Your task to perform on an android device: Open Chrome and go to the settings page Image 0: 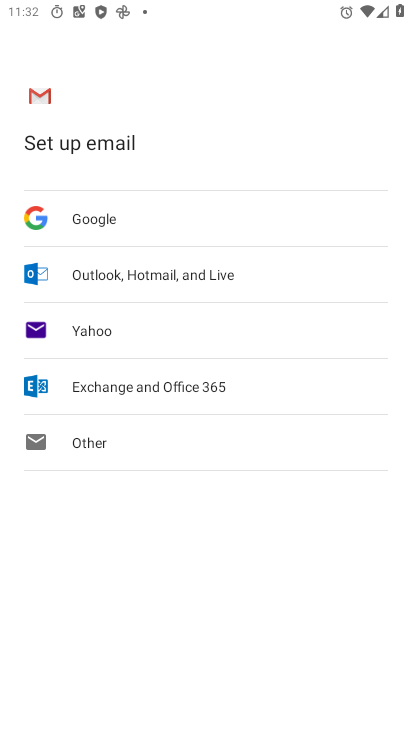
Step 0: press home button
Your task to perform on an android device: Open Chrome and go to the settings page Image 1: 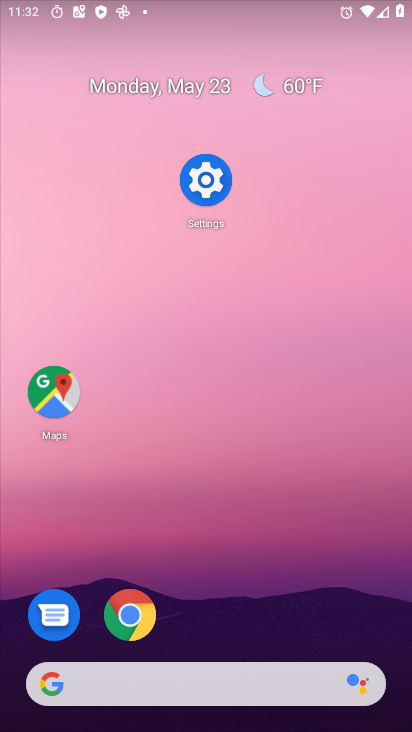
Step 1: click (140, 614)
Your task to perform on an android device: Open Chrome and go to the settings page Image 2: 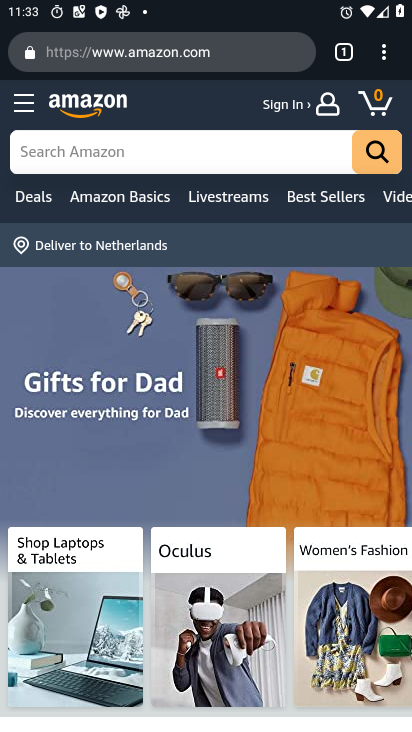
Step 2: click (378, 54)
Your task to perform on an android device: Open Chrome and go to the settings page Image 3: 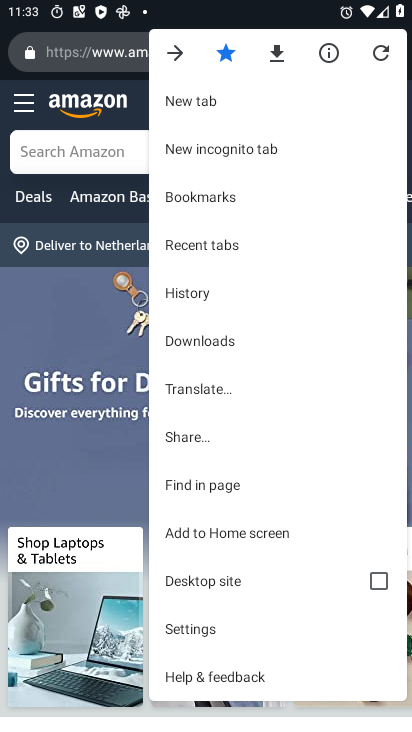
Step 3: click (218, 639)
Your task to perform on an android device: Open Chrome and go to the settings page Image 4: 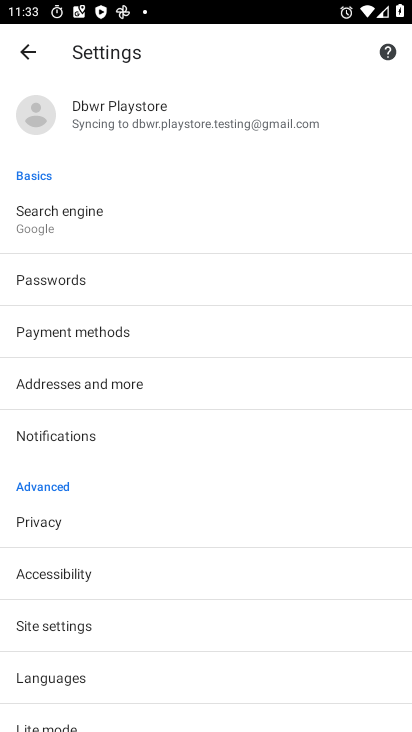
Step 4: task complete